Your task to perform on an android device: Open Android settings Image 0: 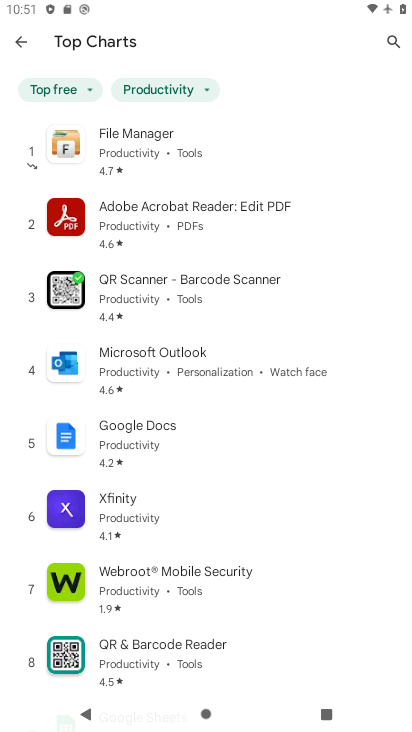
Step 0: press home button
Your task to perform on an android device: Open Android settings Image 1: 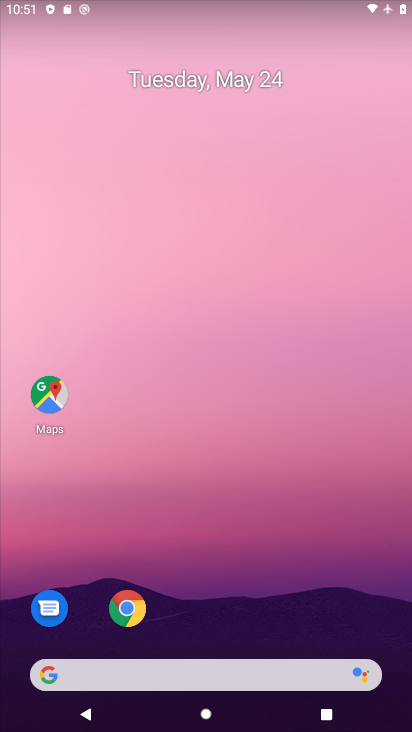
Step 1: drag from (401, 618) to (315, 75)
Your task to perform on an android device: Open Android settings Image 2: 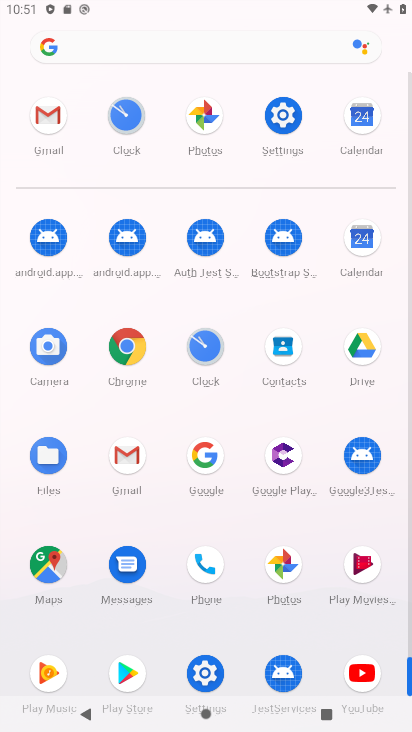
Step 2: click (206, 670)
Your task to perform on an android device: Open Android settings Image 3: 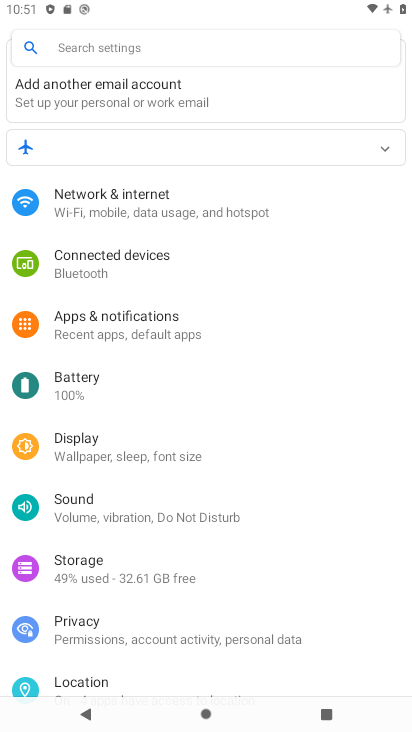
Step 3: drag from (320, 652) to (285, 213)
Your task to perform on an android device: Open Android settings Image 4: 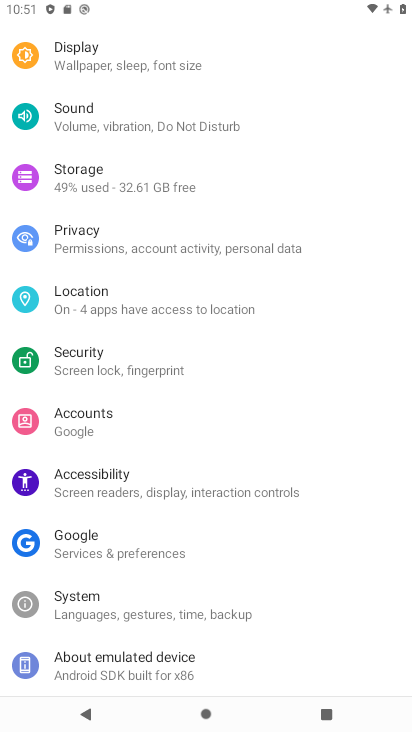
Step 4: click (116, 665)
Your task to perform on an android device: Open Android settings Image 5: 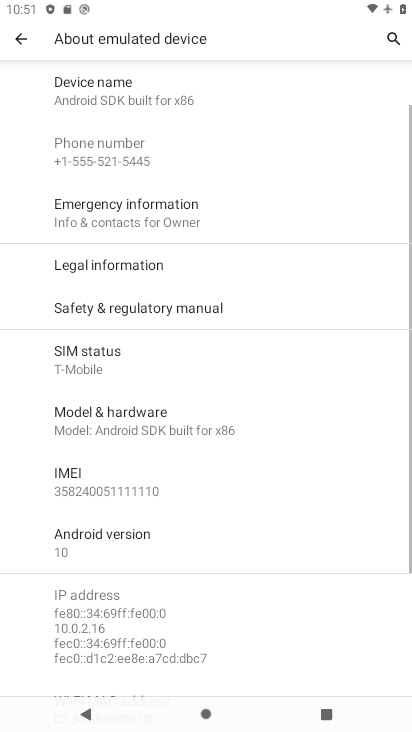
Step 5: task complete